Your task to perform on an android device: turn on the 24-hour format for clock Image 0: 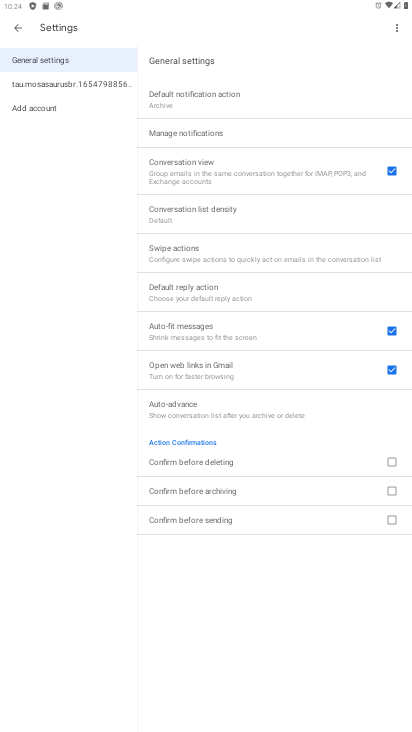
Step 0: press home button
Your task to perform on an android device: turn on the 24-hour format for clock Image 1: 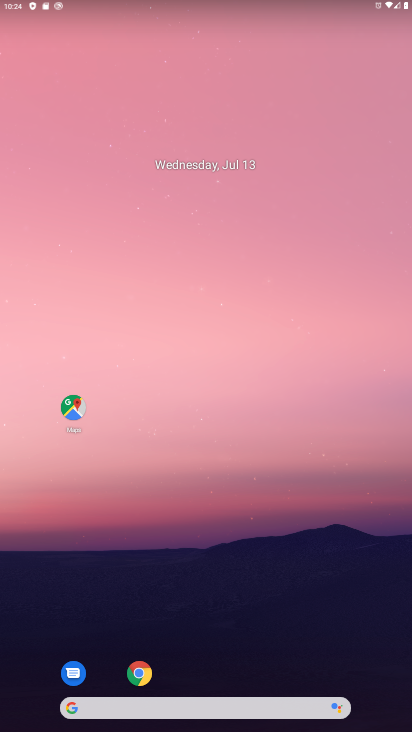
Step 1: drag from (193, 717) to (217, 362)
Your task to perform on an android device: turn on the 24-hour format for clock Image 2: 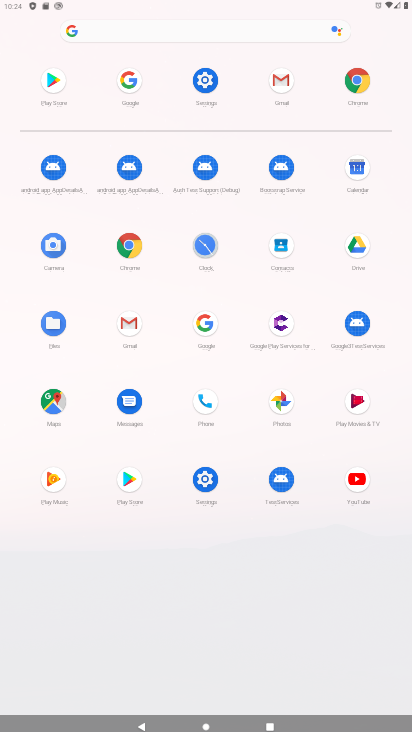
Step 2: click (209, 248)
Your task to perform on an android device: turn on the 24-hour format for clock Image 3: 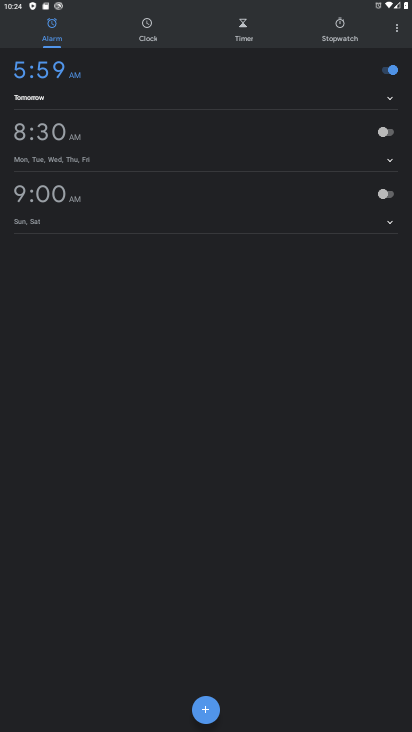
Step 3: click (398, 28)
Your task to perform on an android device: turn on the 24-hour format for clock Image 4: 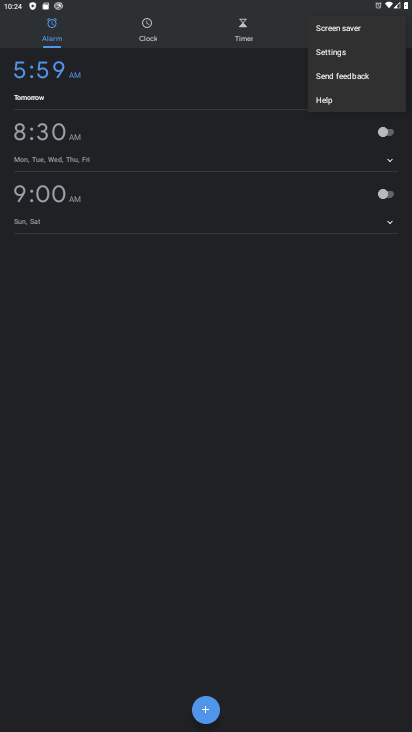
Step 4: click (329, 53)
Your task to perform on an android device: turn on the 24-hour format for clock Image 5: 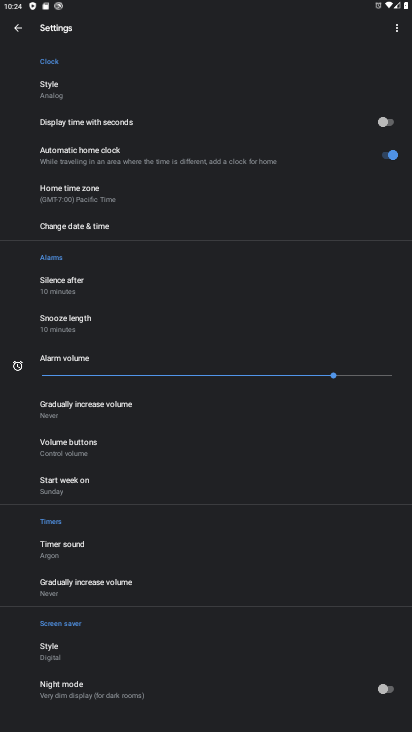
Step 5: click (87, 231)
Your task to perform on an android device: turn on the 24-hour format for clock Image 6: 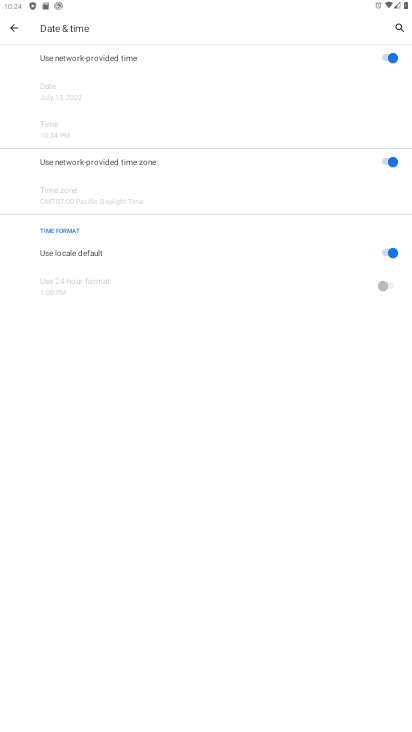
Step 6: click (382, 287)
Your task to perform on an android device: turn on the 24-hour format for clock Image 7: 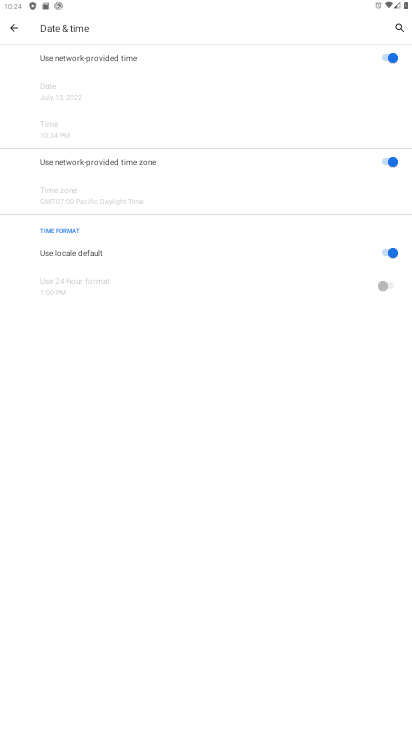
Step 7: click (389, 247)
Your task to perform on an android device: turn on the 24-hour format for clock Image 8: 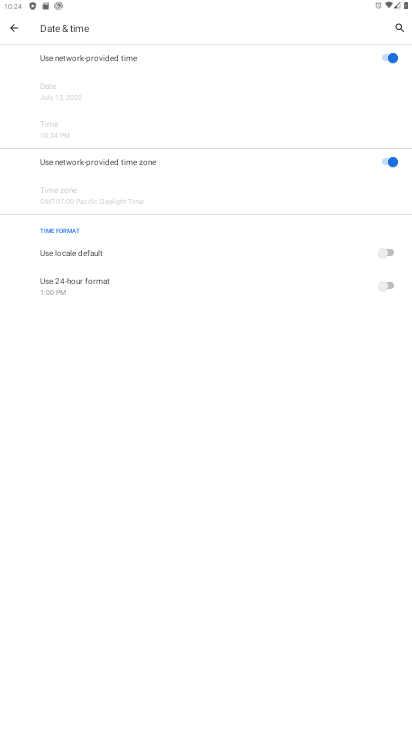
Step 8: click (385, 283)
Your task to perform on an android device: turn on the 24-hour format for clock Image 9: 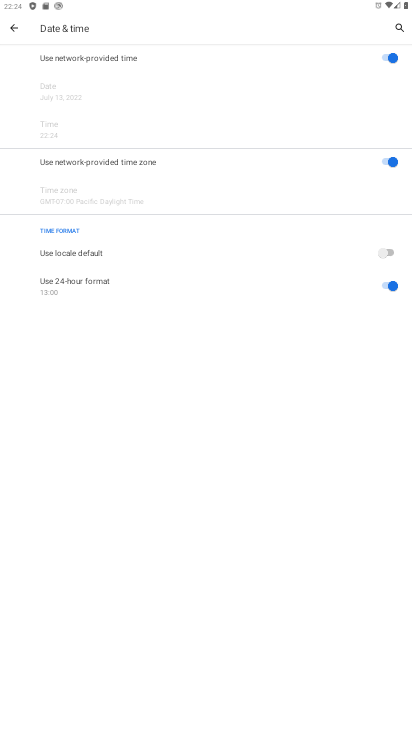
Step 9: task complete